Your task to perform on an android device: Do I have any events tomorrow? Image 0: 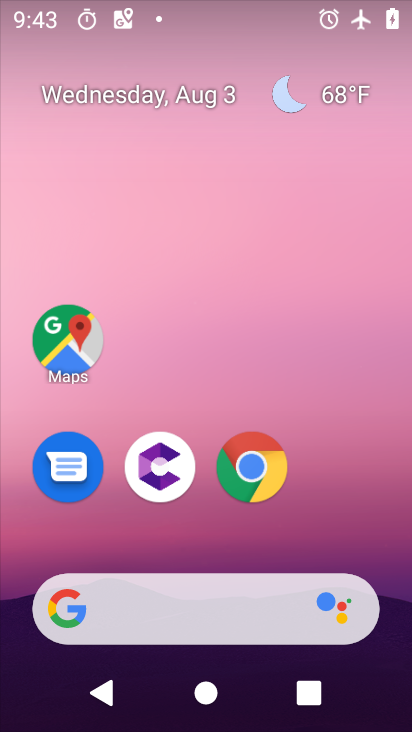
Step 0: drag from (365, 495) to (278, 66)
Your task to perform on an android device: Do I have any events tomorrow? Image 1: 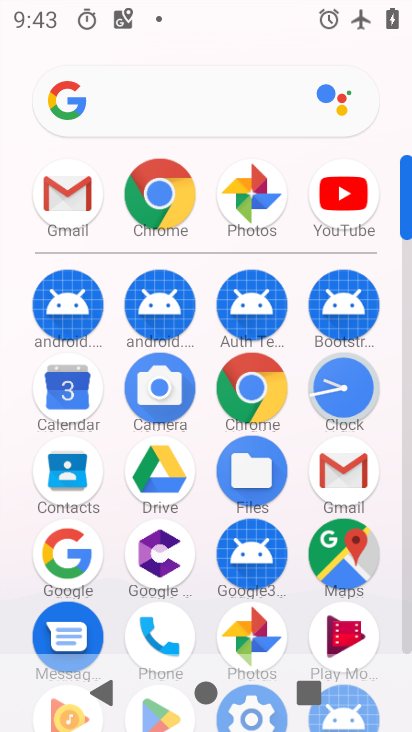
Step 1: click (79, 382)
Your task to perform on an android device: Do I have any events tomorrow? Image 2: 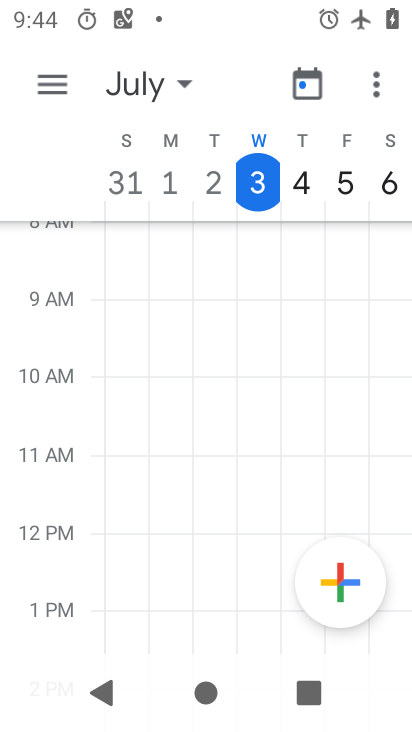
Step 2: click (305, 177)
Your task to perform on an android device: Do I have any events tomorrow? Image 3: 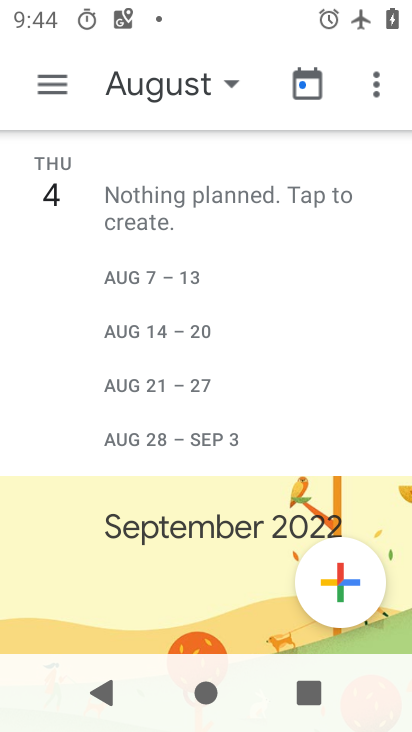
Step 3: task complete